Your task to perform on an android device: visit the assistant section in the google photos Image 0: 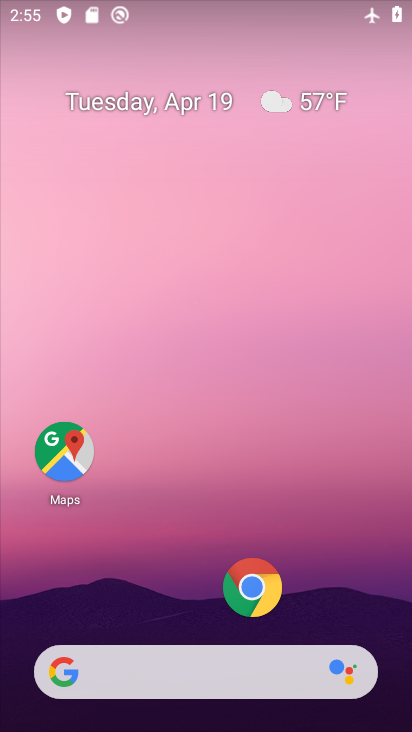
Step 0: drag from (159, 599) to (290, 15)
Your task to perform on an android device: visit the assistant section in the google photos Image 1: 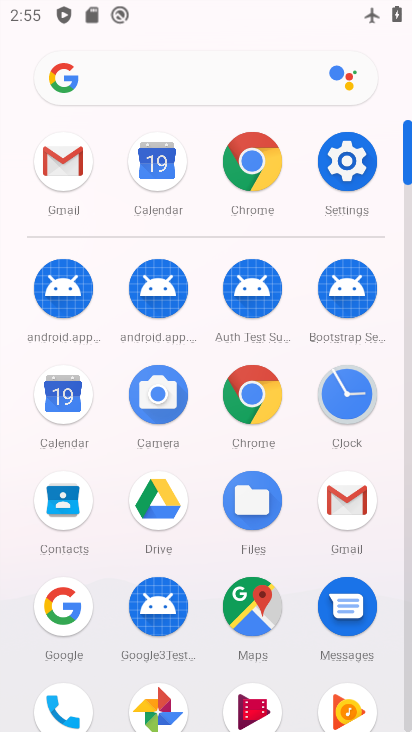
Step 1: click (156, 700)
Your task to perform on an android device: visit the assistant section in the google photos Image 2: 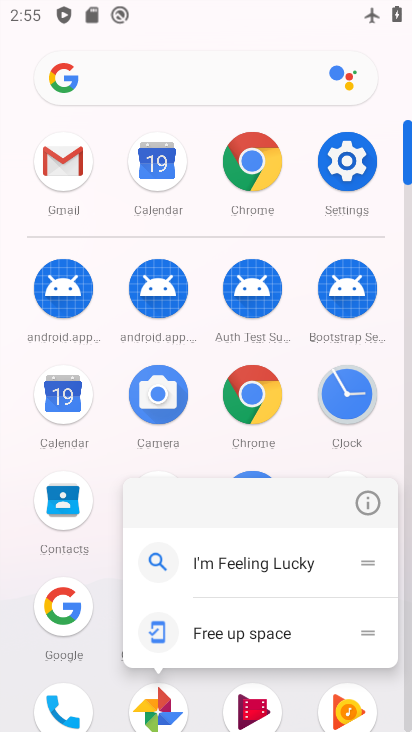
Step 2: click (148, 696)
Your task to perform on an android device: visit the assistant section in the google photos Image 3: 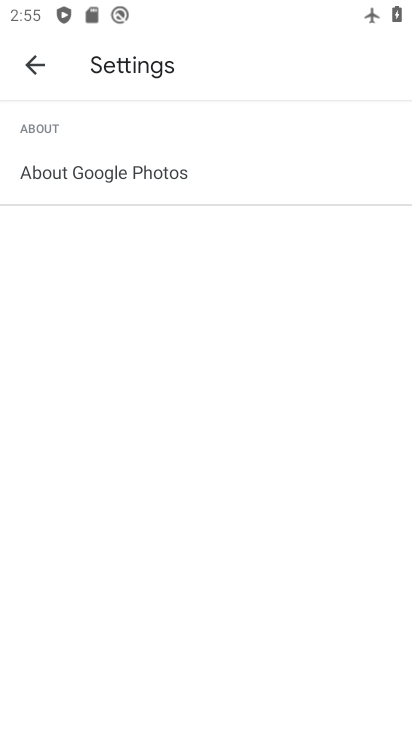
Step 3: click (29, 60)
Your task to perform on an android device: visit the assistant section in the google photos Image 4: 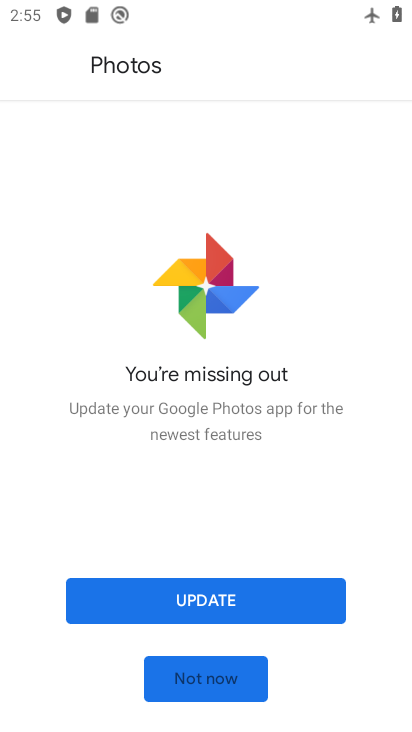
Step 4: click (216, 665)
Your task to perform on an android device: visit the assistant section in the google photos Image 5: 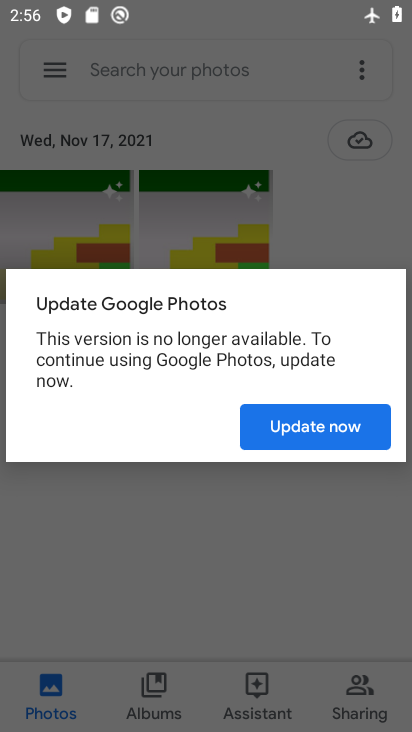
Step 5: click (306, 413)
Your task to perform on an android device: visit the assistant section in the google photos Image 6: 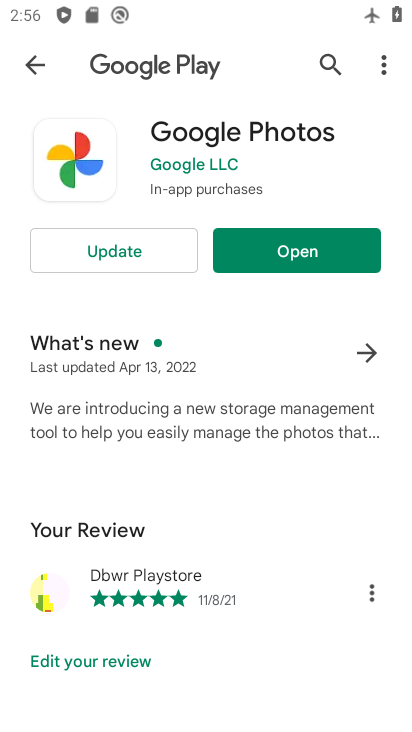
Step 6: click (326, 244)
Your task to perform on an android device: visit the assistant section in the google photos Image 7: 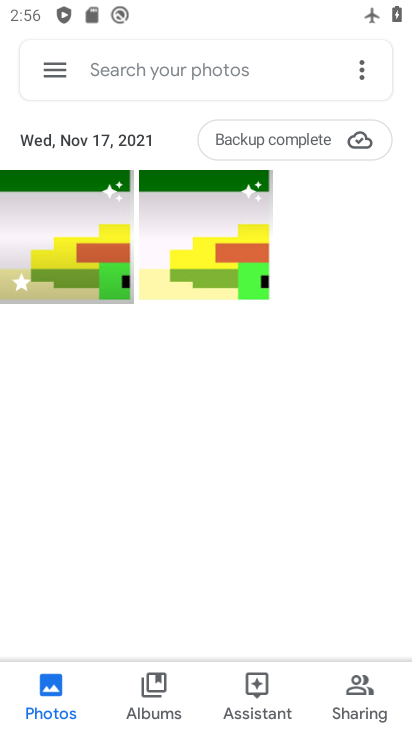
Step 7: click (268, 692)
Your task to perform on an android device: visit the assistant section in the google photos Image 8: 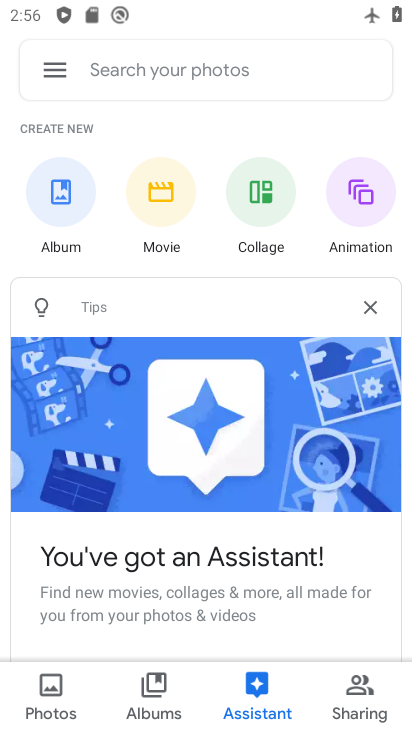
Step 8: task complete